Your task to perform on an android device: turn off location history Image 0: 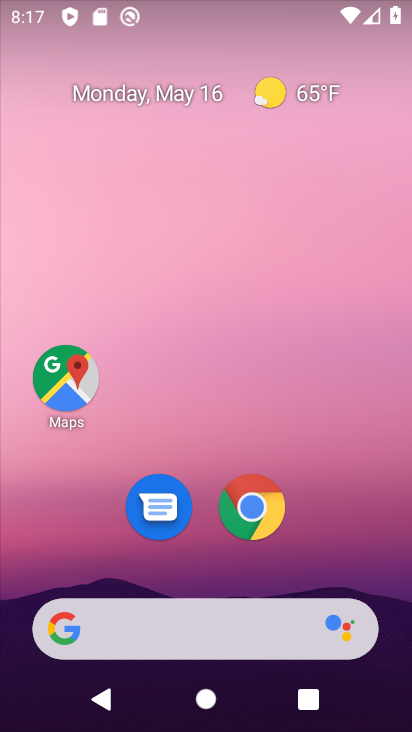
Step 0: drag from (224, 603) to (62, 4)
Your task to perform on an android device: turn off location history Image 1: 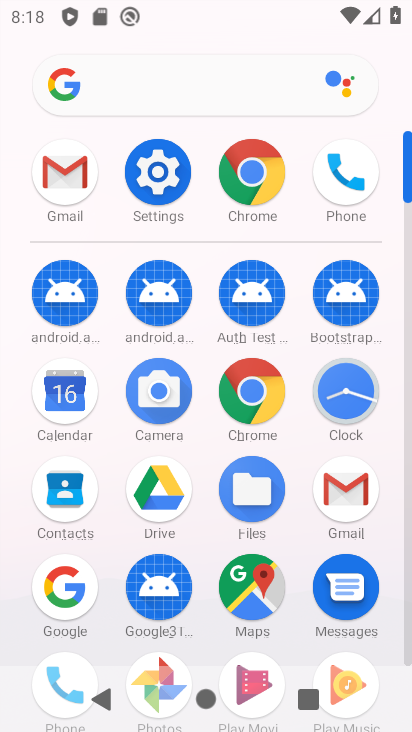
Step 1: click (158, 181)
Your task to perform on an android device: turn off location history Image 2: 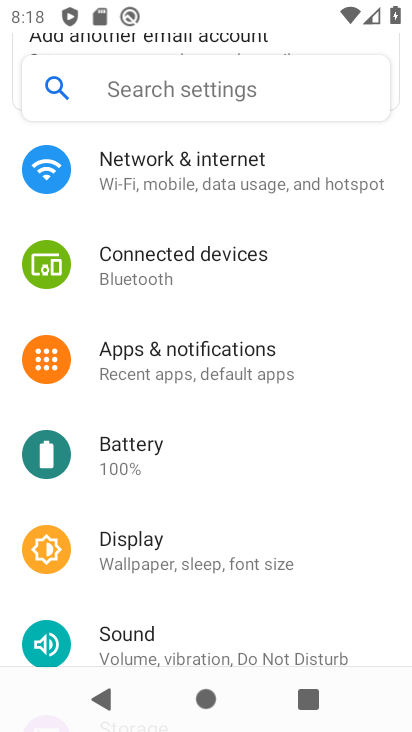
Step 2: drag from (220, 559) to (208, 146)
Your task to perform on an android device: turn off location history Image 3: 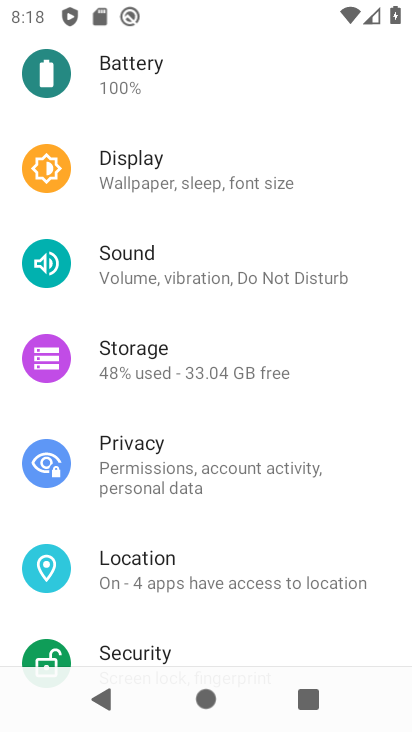
Step 3: click (203, 570)
Your task to perform on an android device: turn off location history Image 4: 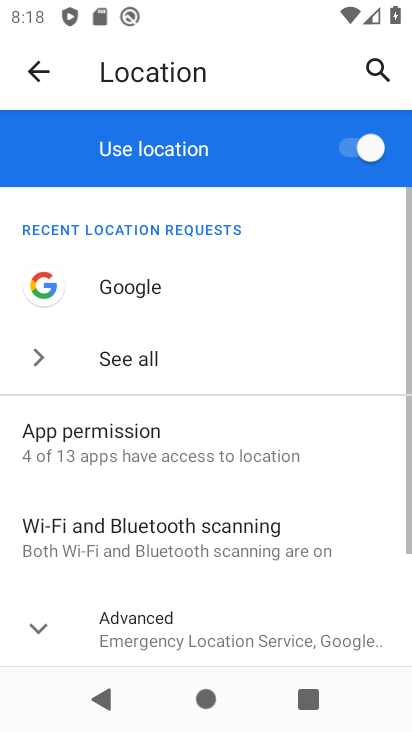
Step 4: click (204, 611)
Your task to perform on an android device: turn off location history Image 5: 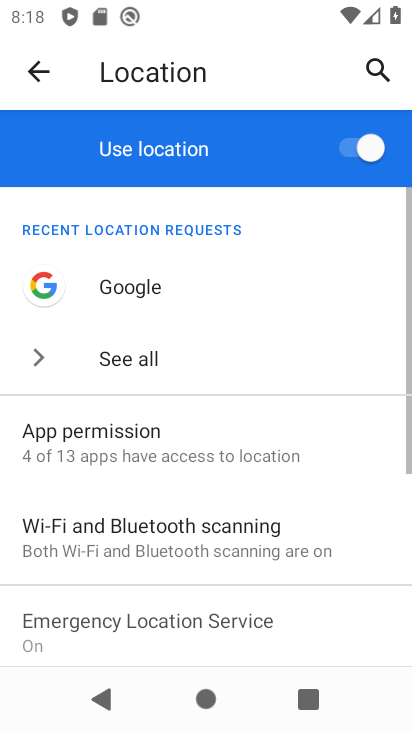
Step 5: drag from (204, 611) to (200, 119)
Your task to perform on an android device: turn off location history Image 6: 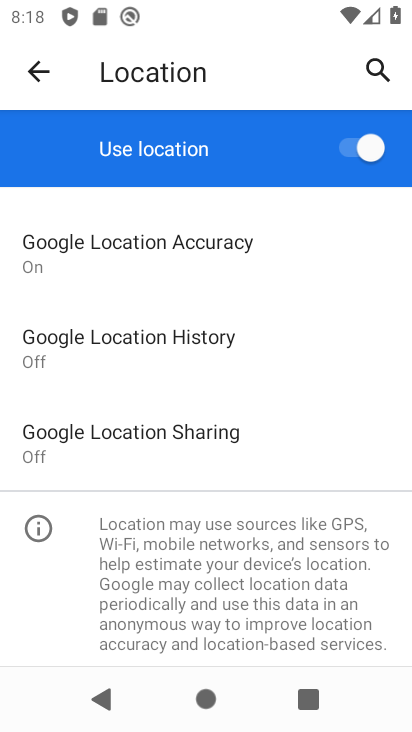
Step 6: click (161, 351)
Your task to perform on an android device: turn off location history Image 7: 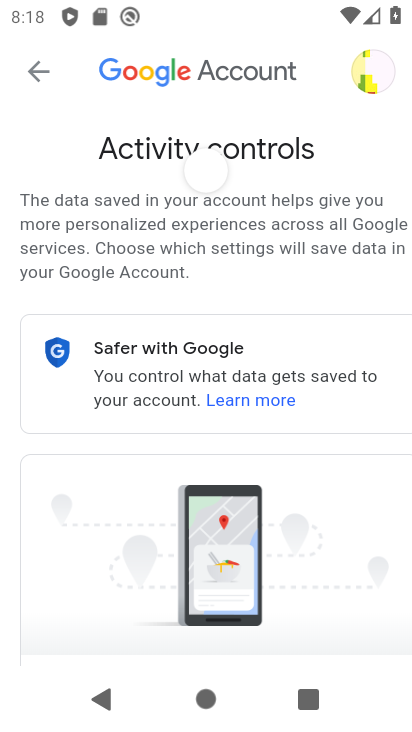
Step 7: drag from (318, 570) to (231, 65)
Your task to perform on an android device: turn off location history Image 8: 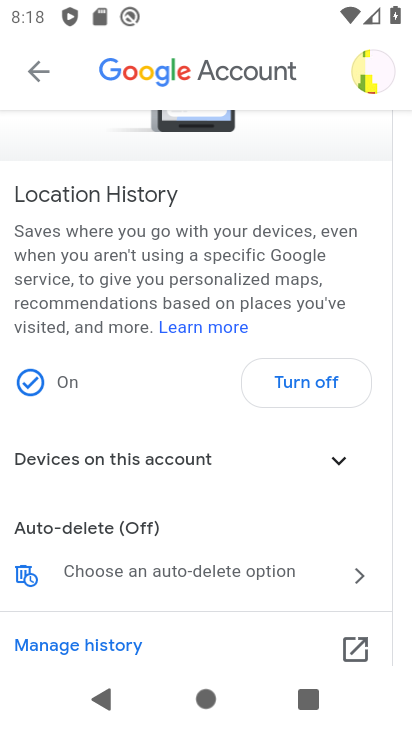
Step 8: click (295, 396)
Your task to perform on an android device: turn off location history Image 9: 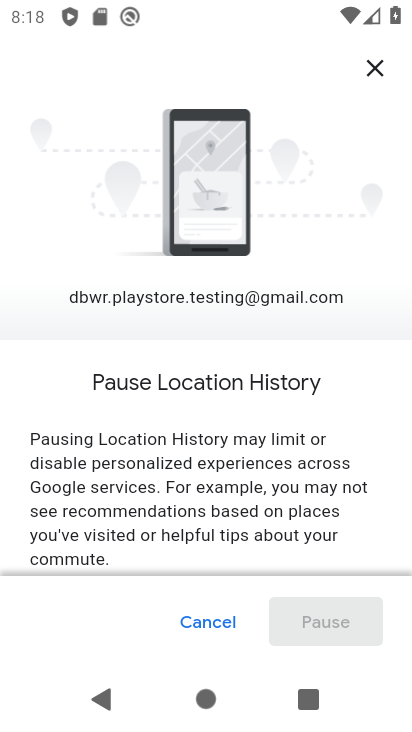
Step 9: drag from (301, 471) to (211, 0)
Your task to perform on an android device: turn off location history Image 10: 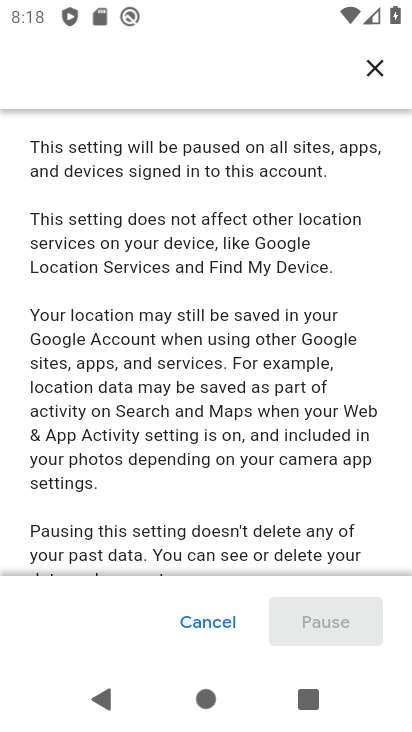
Step 10: drag from (294, 506) to (284, 54)
Your task to perform on an android device: turn off location history Image 11: 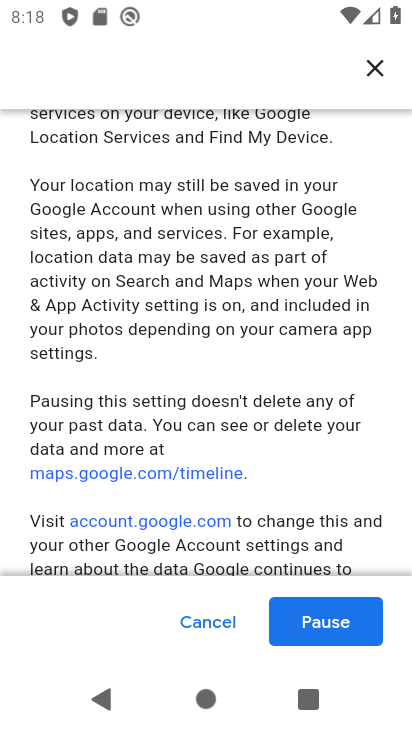
Step 11: click (347, 627)
Your task to perform on an android device: turn off location history Image 12: 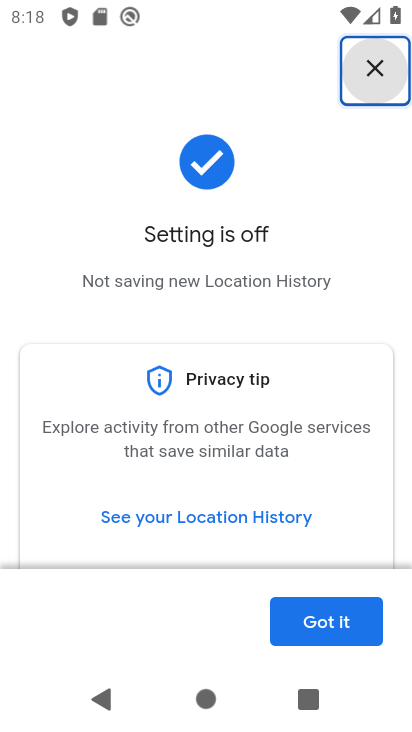
Step 12: click (349, 636)
Your task to perform on an android device: turn off location history Image 13: 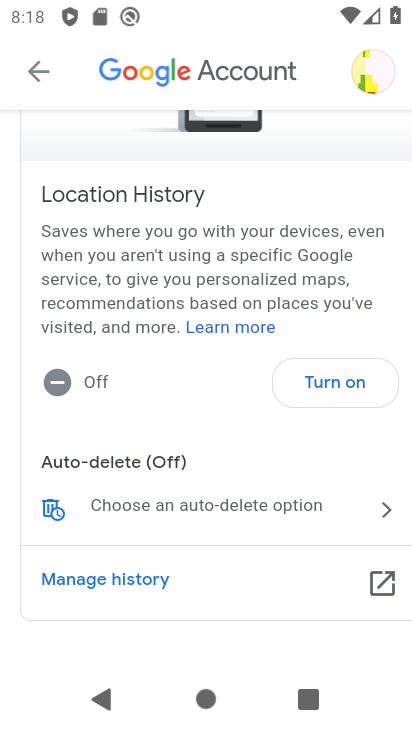
Step 13: task complete